Your task to perform on an android device: Go to accessibility settings Image 0: 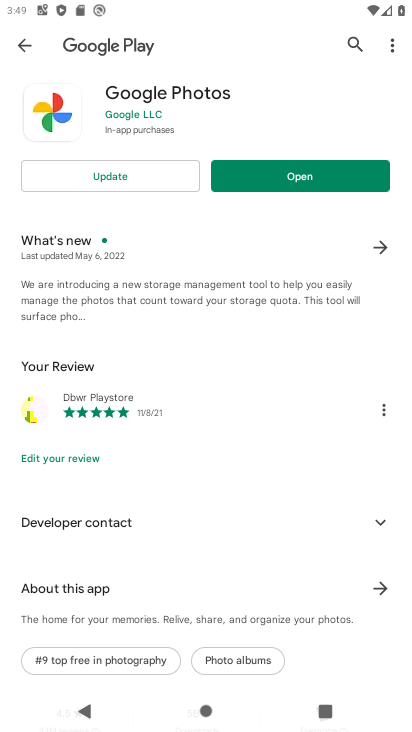
Step 0: press home button
Your task to perform on an android device: Go to accessibility settings Image 1: 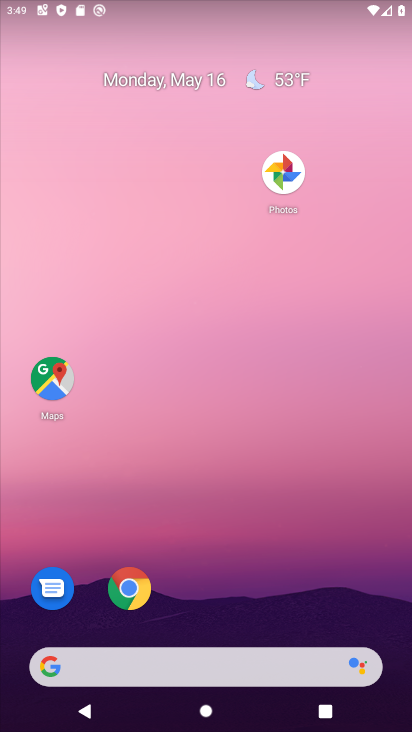
Step 1: drag from (167, 608) to (177, 225)
Your task to perform on an android device: Go to accessibility settings Image 2: 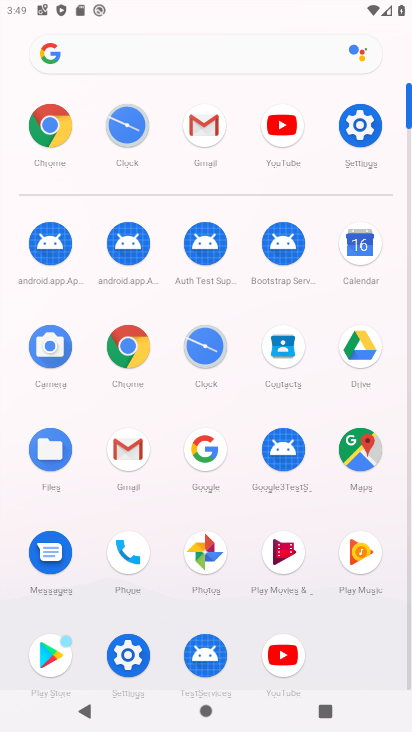
Step 2: click (362, 122)
Your task to perform on an android device: Go to accessibility settings Image 3: 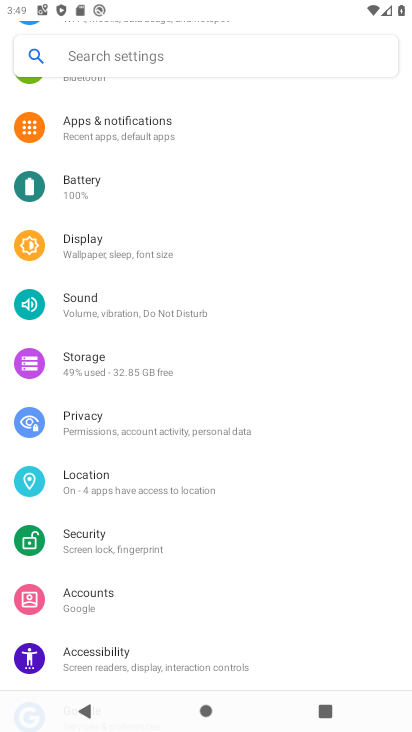
Step 3: click (78, 652)
Your task to perform on an android device: Go to accessibility settings Image 4: 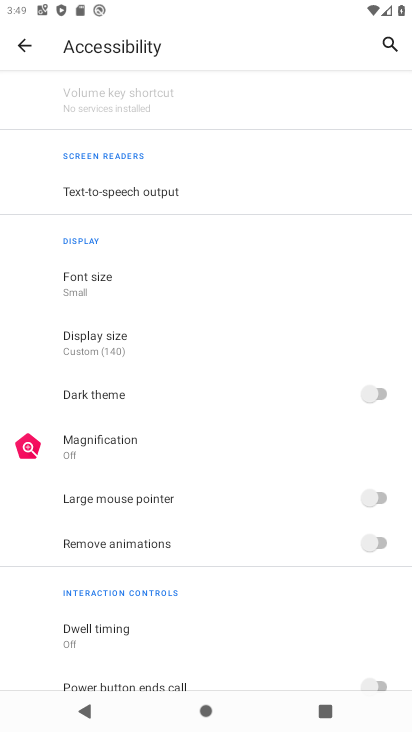
Step 4: task complete